Your task to perform on an android device: Go to Reddit.com Image 0: 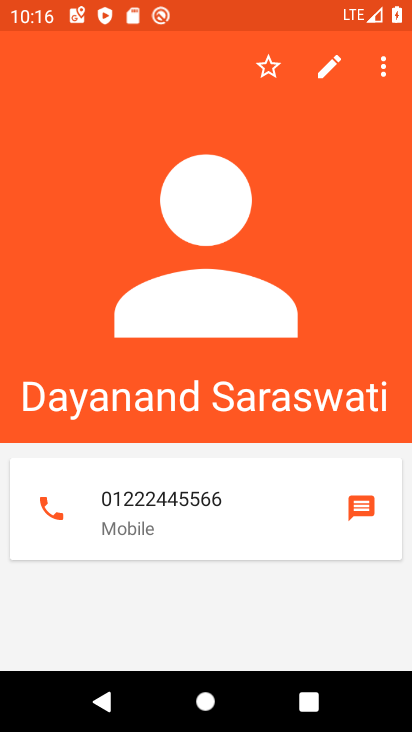
Step 0: press home button
Your task to perform on an android device: Go to Reddit.com Image 1: 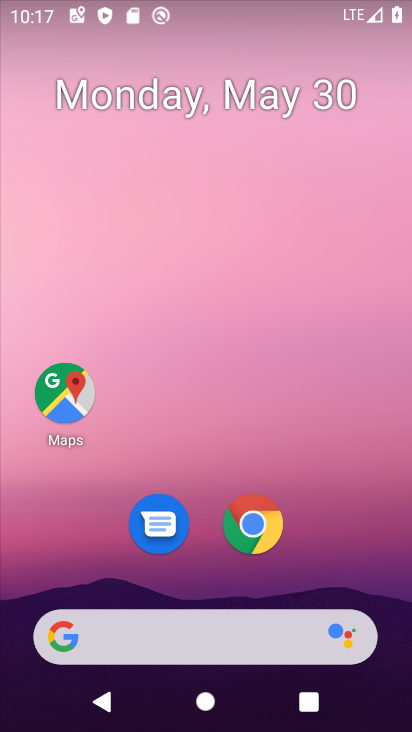
Step 1: click (205, 633)
Your task to perform on an android device: Go to Reddit.com Image 2: 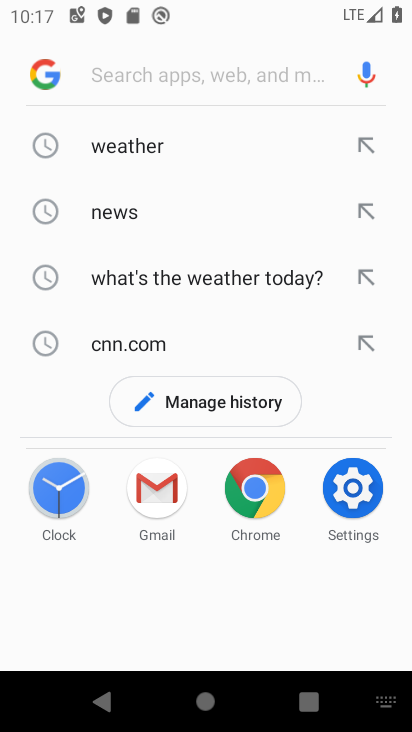
Step 2: type "reddit.com"
Your task to perform on an android device: Go to Reddit.com Image 3: 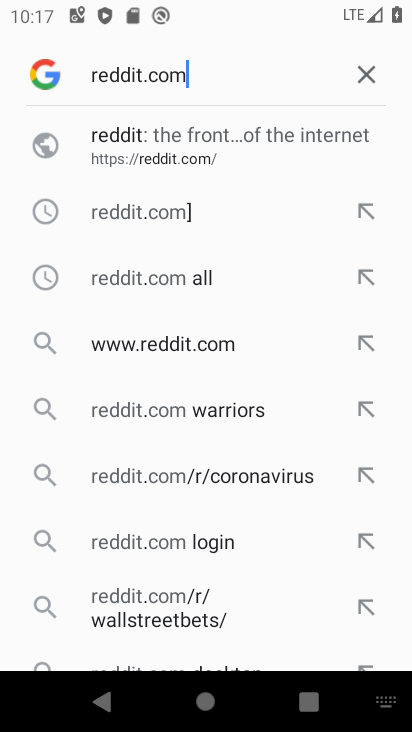
Step 3: click (143, 140)
Your task to perform on an android device: Go to Reddit.com Image 4: 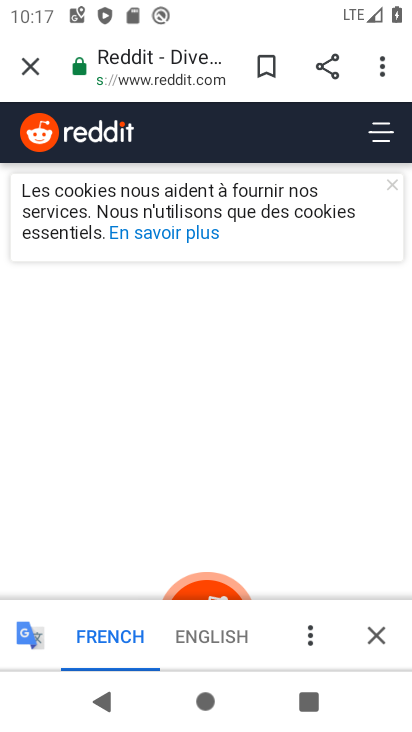
Step 4: task complete